Your task to perform on an android device: open device folders in google photos Image 0: 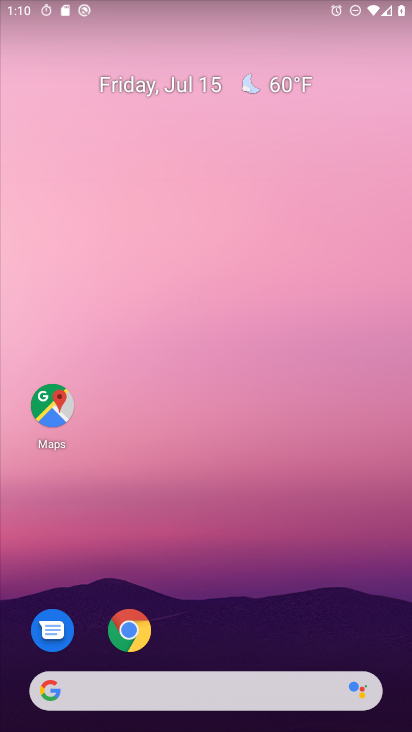
Step 0: drag from (169, 360) to (230, 59)
Your task to perform on an android device: open device folders in google photos Image 1: 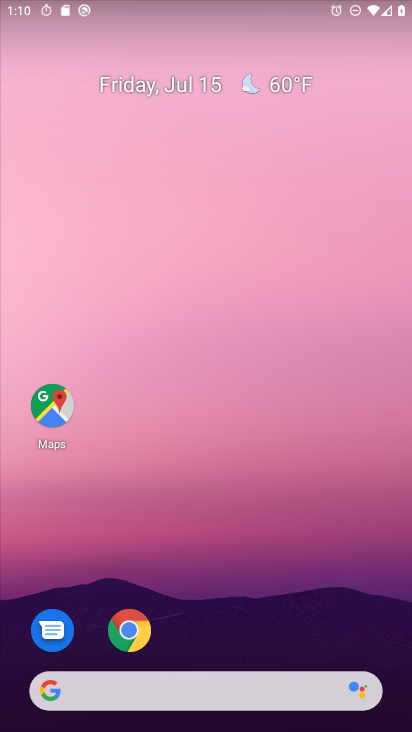
Step 1: drag from (197, 274) to (366, 85)
Your task to perform on an android device: open device folders in google photos Image 2: 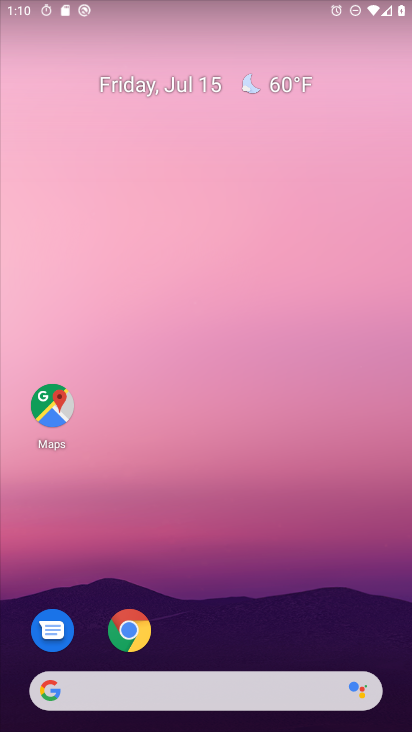
Step 2: drag from (183, 553) to (186, 113)
Your task to perform on an android device: open device folders in google photos Image 3: 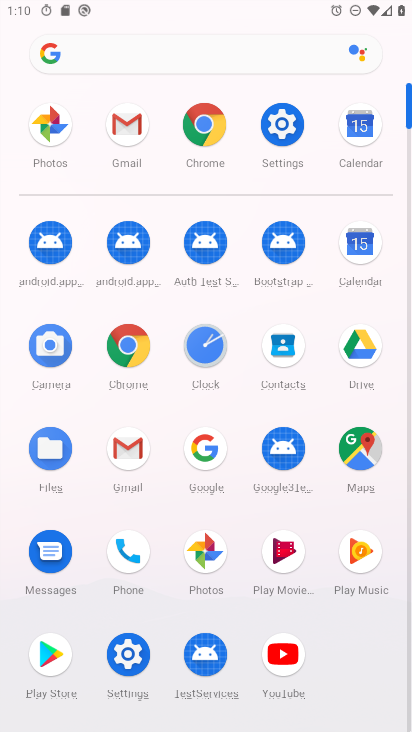
Step 3: click (202, 559)
Your task to perform on an android device: open device folders in google photos Image 4: 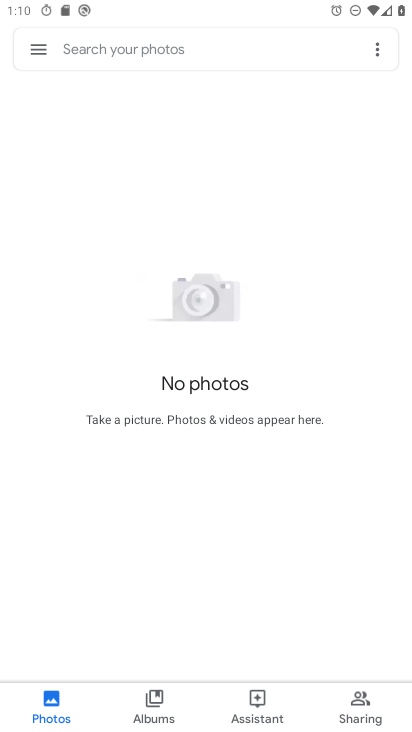
Step 4: click (35, 55)
Your task to perform on an android device: open device folders in google photos Image 5: 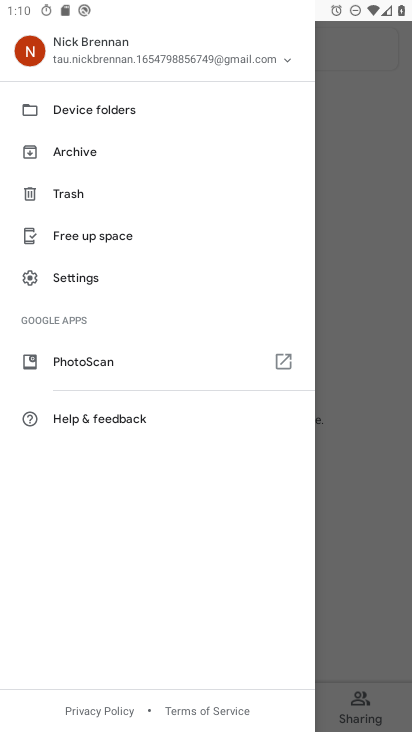
Step 5: click (75, 116)
Your task to perform on an android device: open device folders in google photos Image 6: 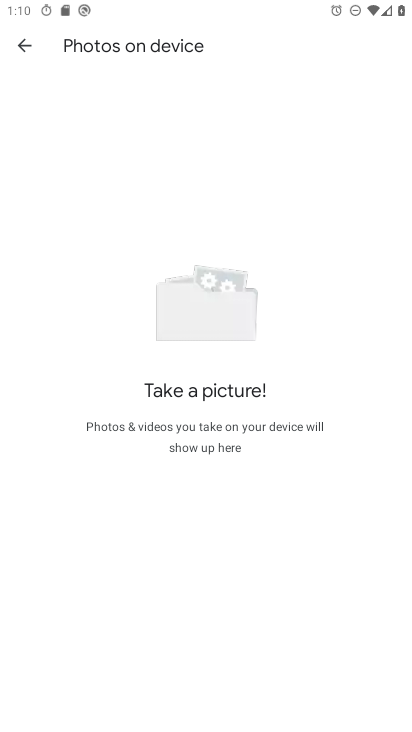
Step 6: task complete